Your task to perform on an android device: allow cookies in the chrome app Image 0: 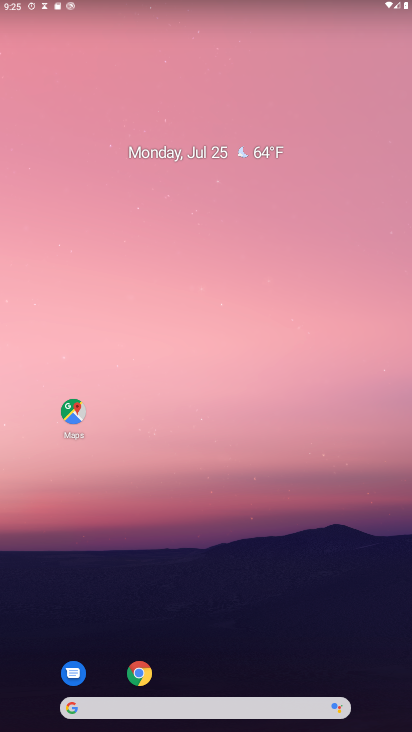
Step 0: press home button
Your task to perform on an android device: allow cookies in the chrome app Image 1: 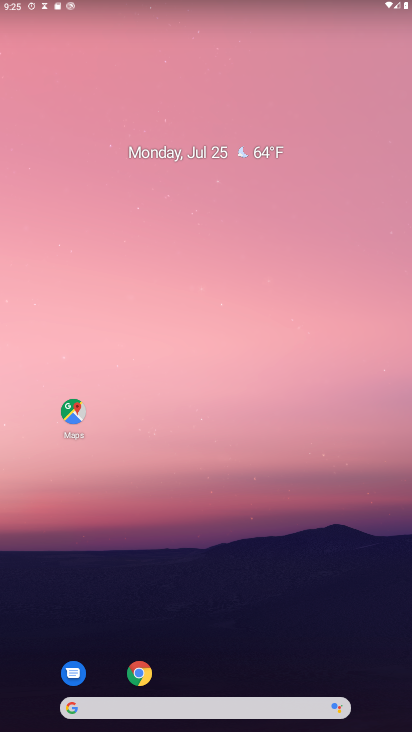
Step 1: click (136, 668)
Your task to perform on an android device: allow cookies in the chrome app Image 2: 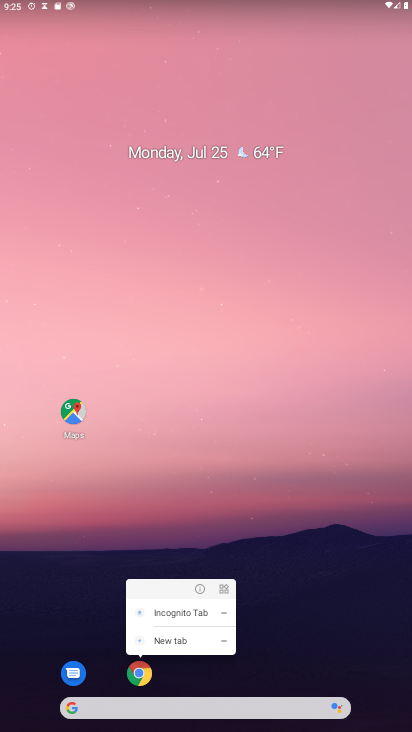
Step 2: click (140, 668)
Your task to perform on an android device: allow cookies in the chrome app Image 3: 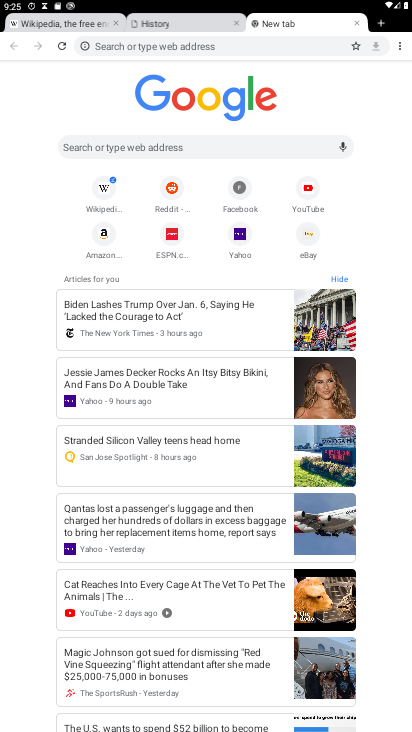
Step 3: click (399, 45)
Your task to perform on an android device: allow cookies in the chrome app Image 4: 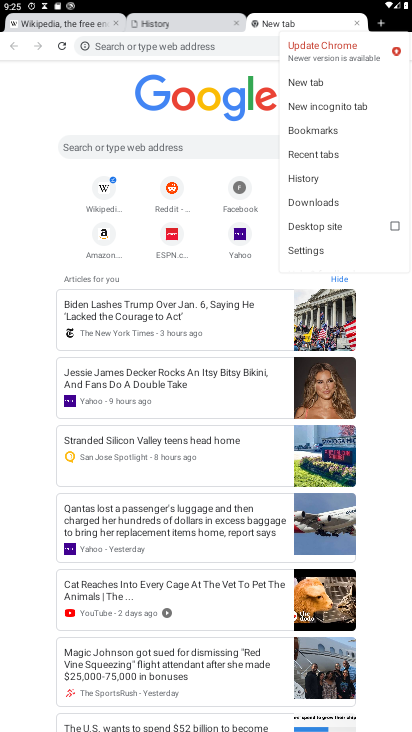
Step 4: click (326, 249)
Your task to perform on an android device: allow cookies in the chrome app Image 5: 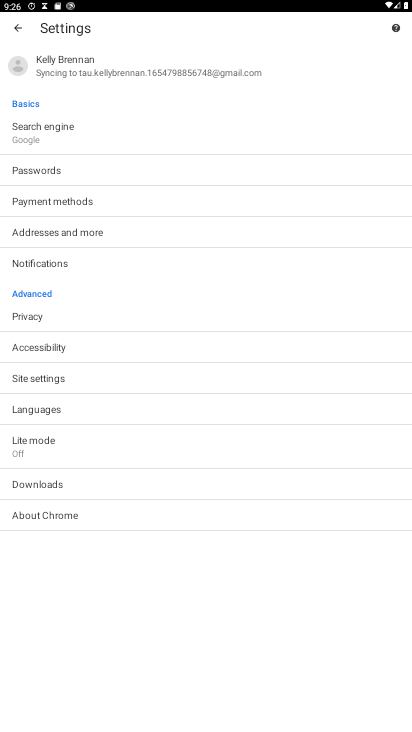
Step 5: click (72, 378)
Your task to perform on an android device: allow cookies in the chrome app Image 6: 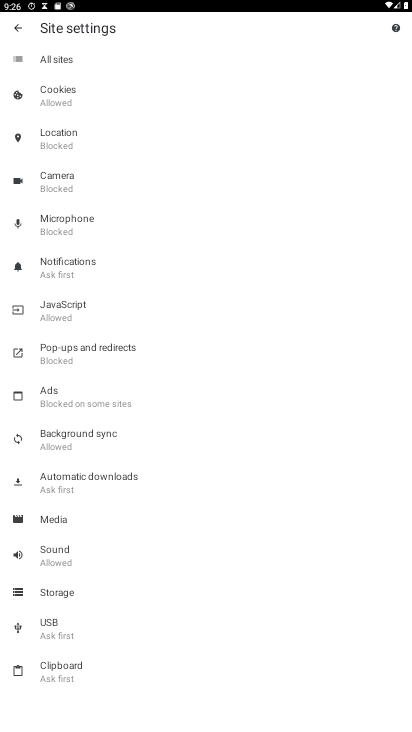
Step 6: click (90, 95)
Your task to perform on an android device: allow cookies in the chrome app Image 7: 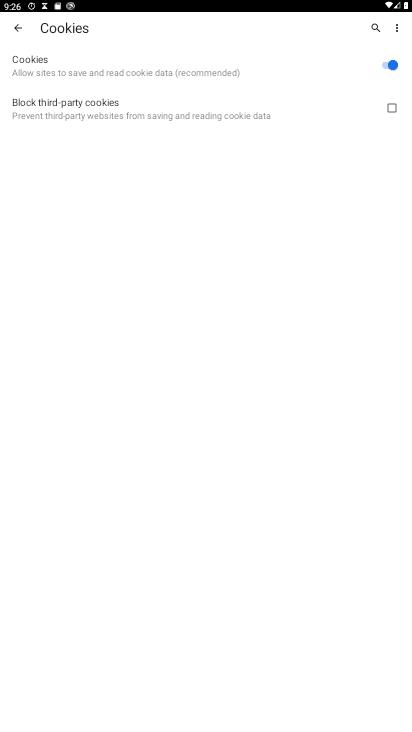
Step 7: task complete